Your task to perform on an android device: Open the stopwatch Image 0: 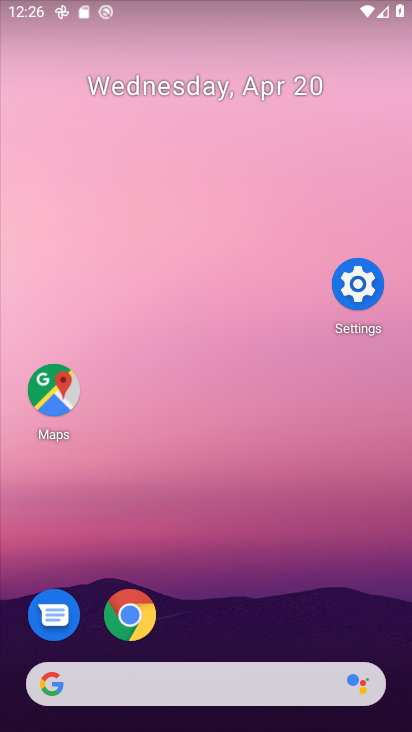
Step 0: drag from (182, 645) to (249, 280)
Your task to perform on an android device: Open the stopwatch Image 1: 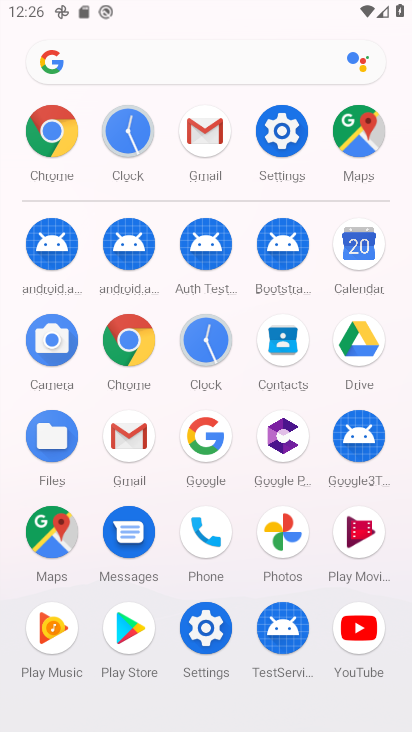
Step 1: click (187, 343)
Your task to perform on an android device: Open the stopwatch Image 2: 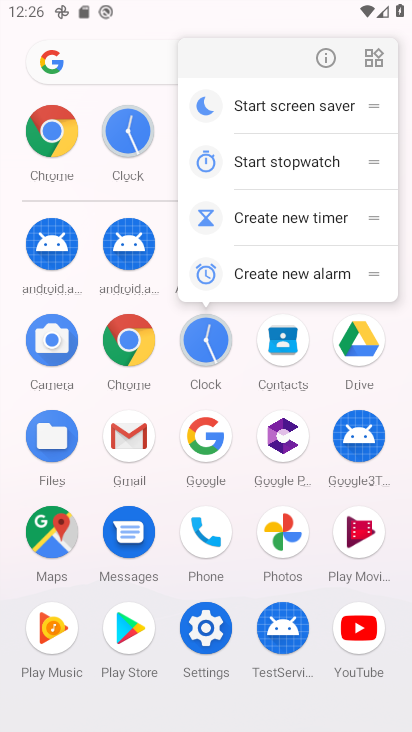
Step 2: click (319, 62)
Your task to perform on an android device: Open the stopwatch Image 3: 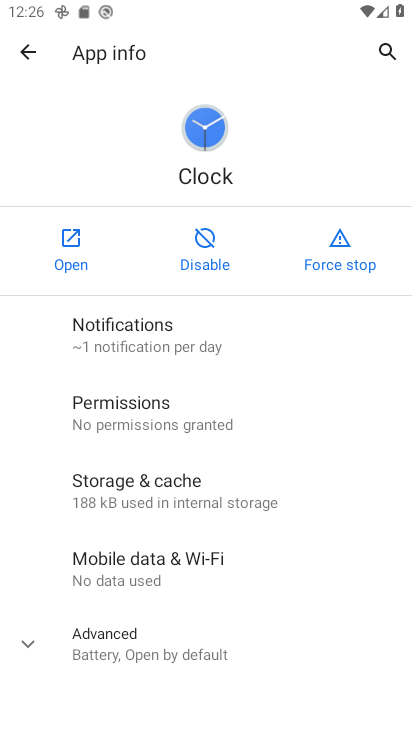
Step 3: click (94, 235)
Your task to perform on an android device: Open the stopwatch Image 4: 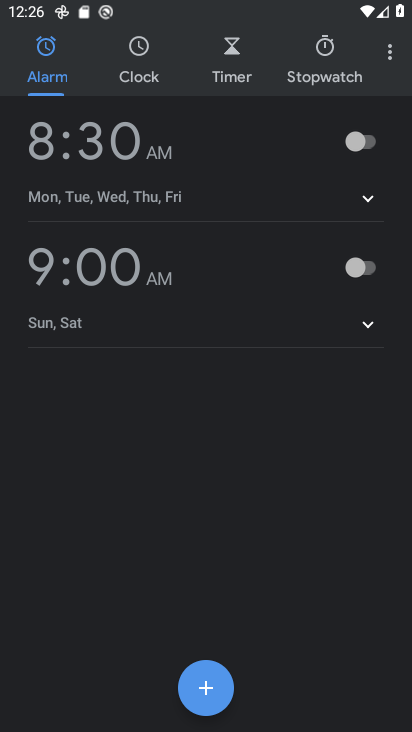
Step 4: click (312, 71)
Your task to perform on an android device: Open the stopwatch Image 5: 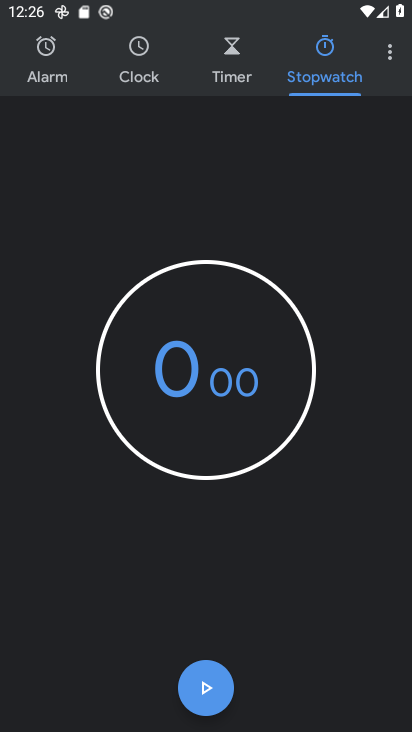
Step 5: click (211, 692)
Your task to perform on an android device: Open the stopwatch Image 6: 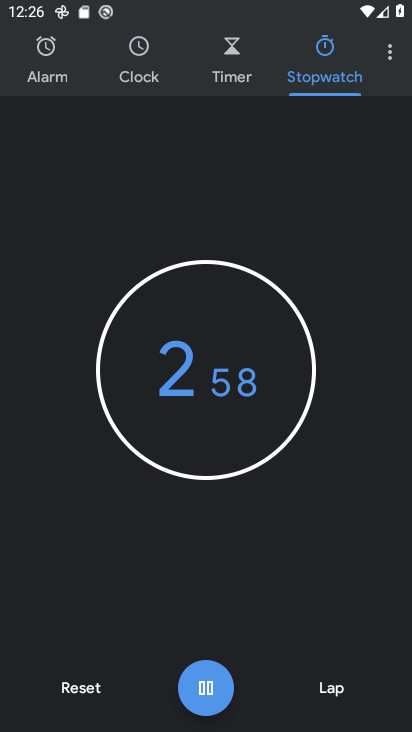
Step 6: task complete